Your task to perform on an android device: toggle airplane mode Image 0: 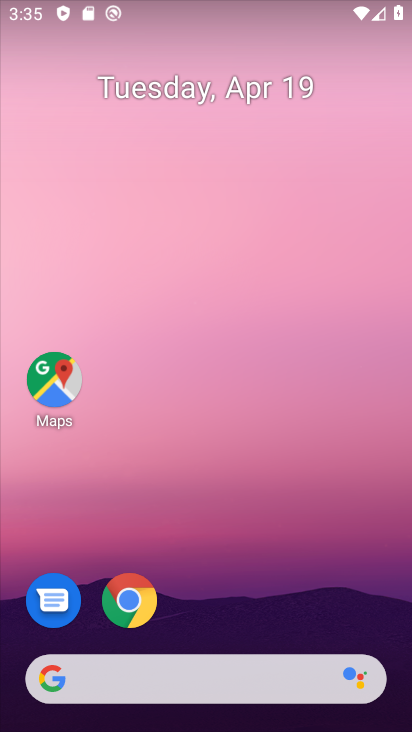
Step 0: drag from (217, 14) to (165, 658)
Your task to perform on an android device: toggle airplane mode Image 1: 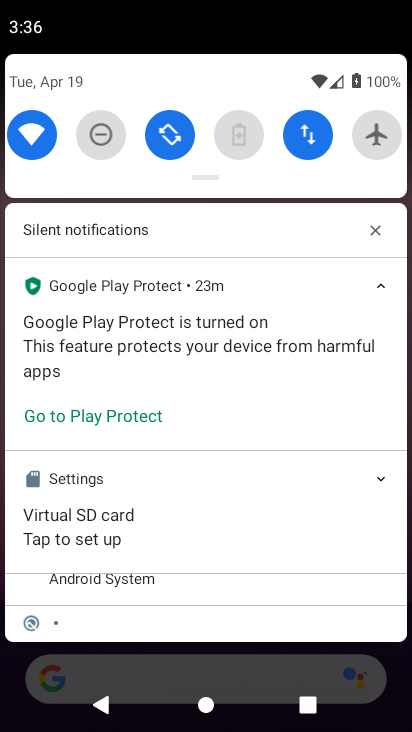
Step 1: drag from (204, 98) to (234, 698)
Your task to perform on an android device: toggle airplane mode Image 2: 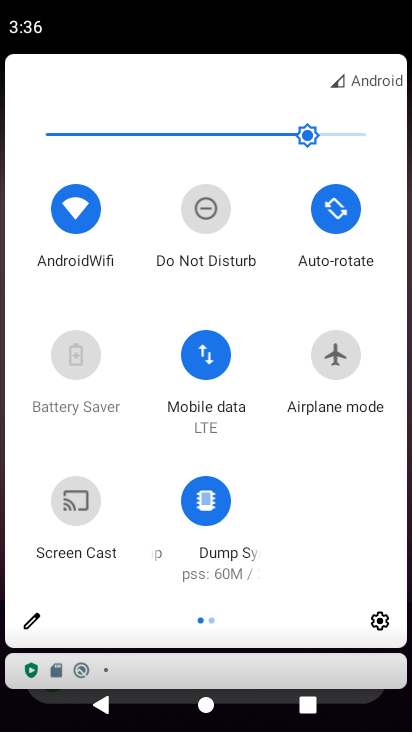
Step 2: click (329, 372)
Your task to perform on an android device: toggle airplane mode Image 3: 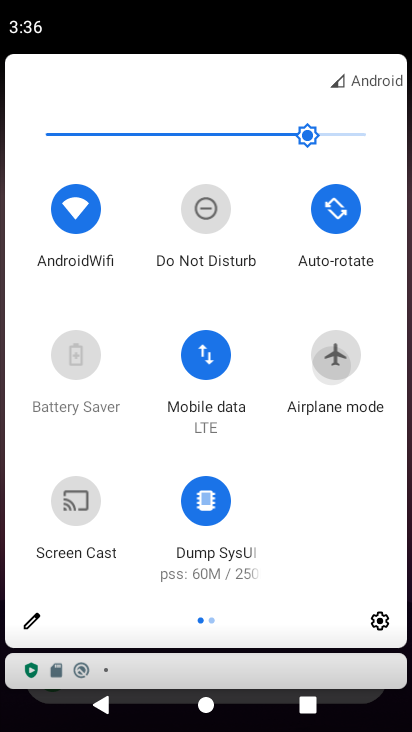
Step 3: click (329, 372)
Your task to perform on an android device: toggle airplane mode Image 4: 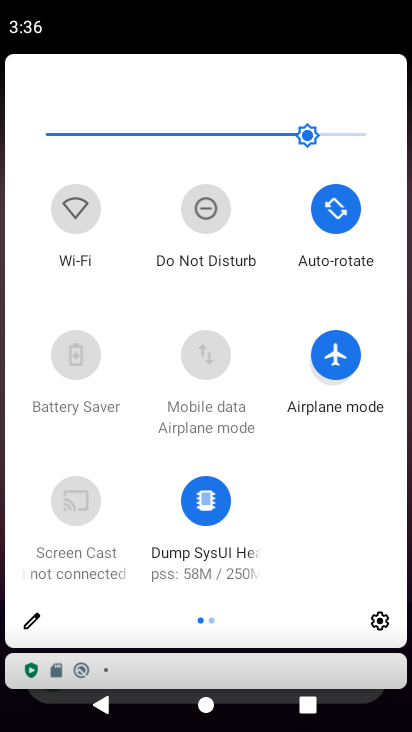
Step 4: click (329, 372)
Your task to perform on an android device: toggle airplane mode Image 5: 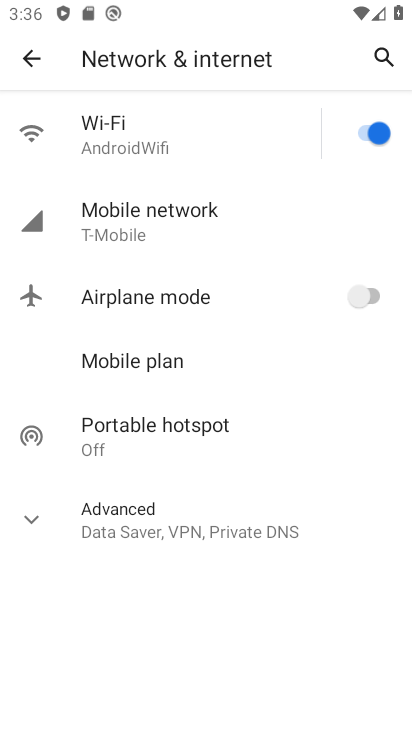
Step 5: click (374, 300)
Your task to perform on an android device: toggle airplane mode Image 6: 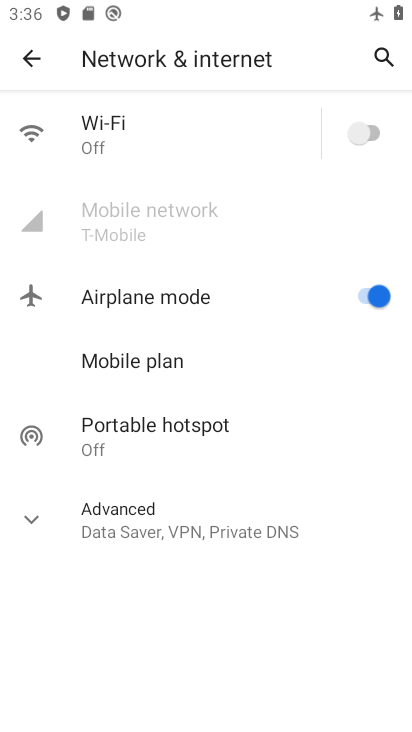
Step 6: click (374, 300)
Your task to perform on an android device: toggle airplane mode Image 7: 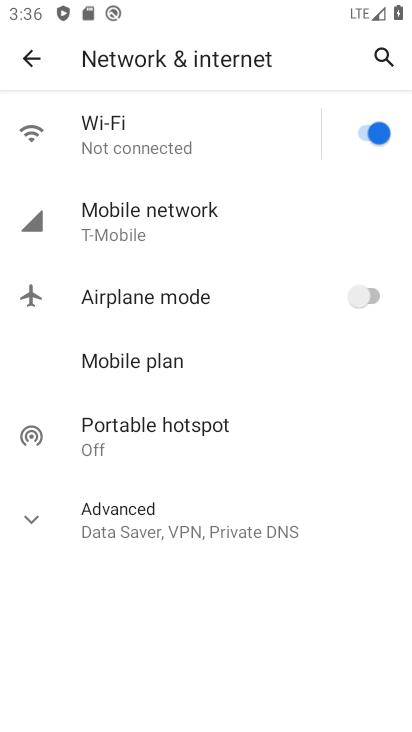
Step 7: click (374, 300)
Your task to perform on an android device: toggle airplane mode Image 8: 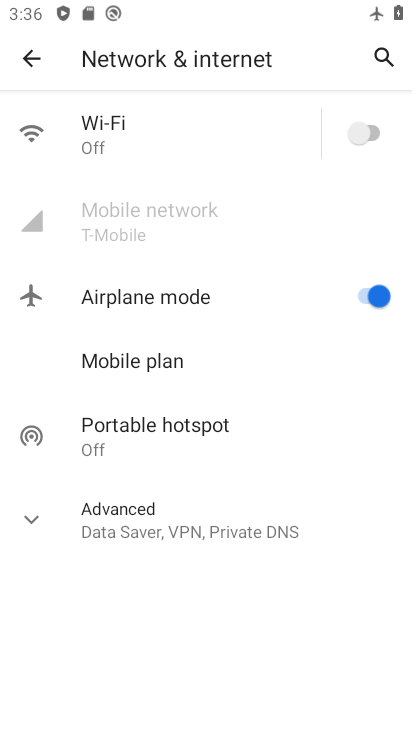
Step 8: task complete